Your task to perform on an android device: open chrome and create a bookmark for the current page Image 0: 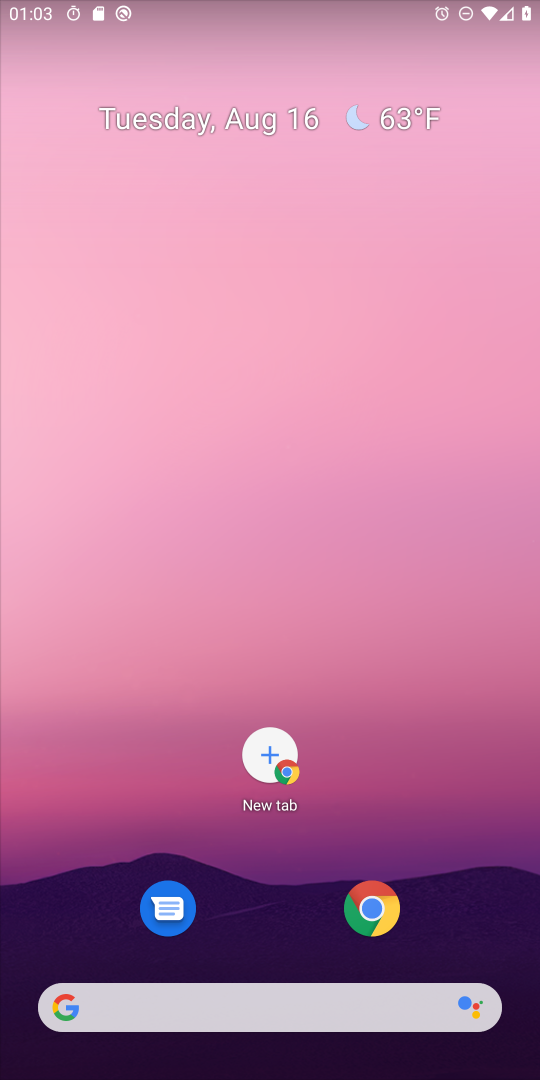
Step 0: click (388, 923)
Your task to perform on an android device: open chrome and create a bookmark for the current page Image 1: 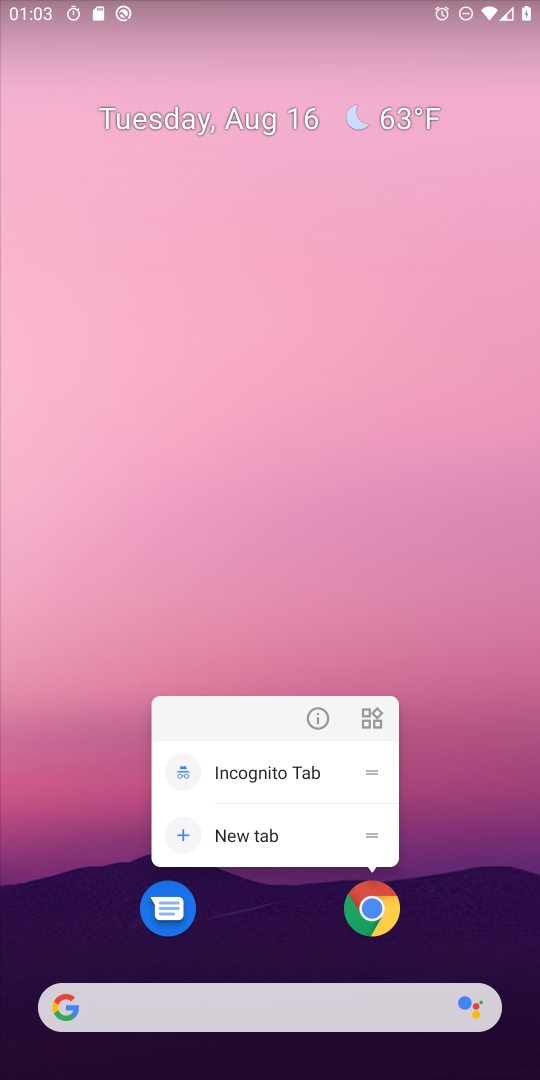
Step 1: click (250, 839)
Your task to perform on an android device: open chrome and create a bookmark for the current page Image 2: 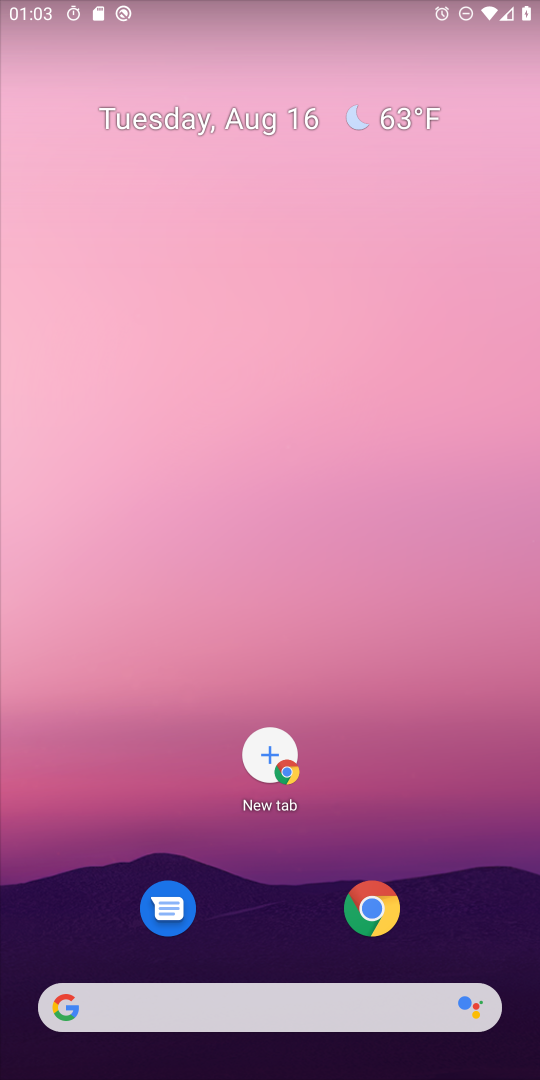
Step 2: click (273, 747)
Your task to perform on an android device: open chrome and create a bookmark for the current page Image 3: 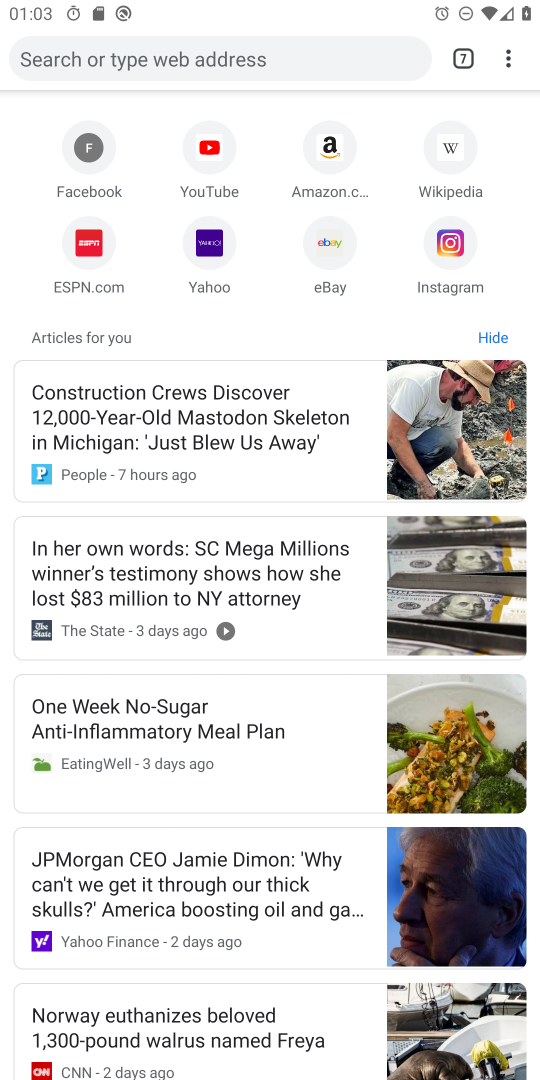
Step 3: click (506, 51)
Your task to perform on an android device: open chrome and create a bookmark for the current page Image 4: 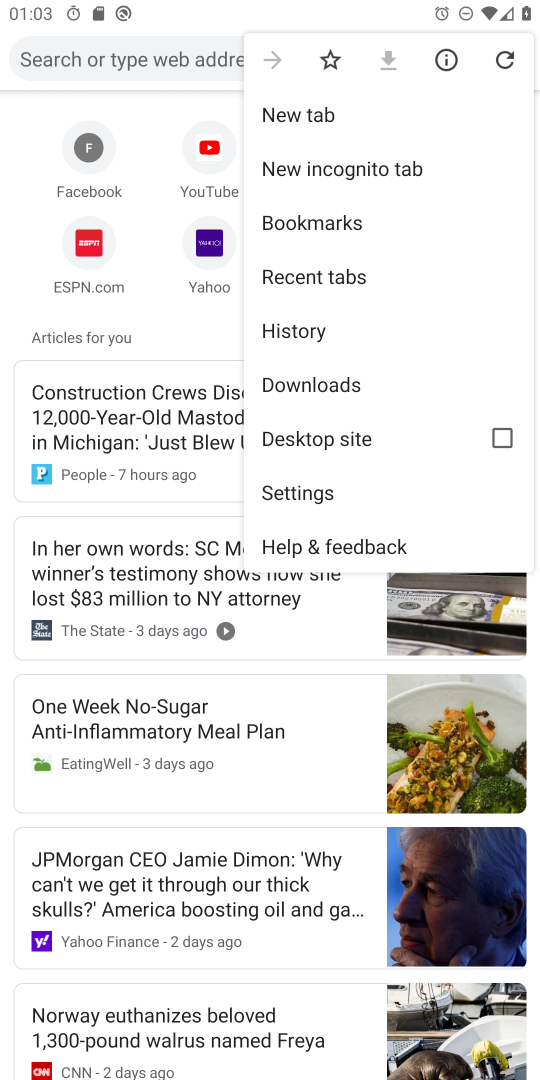
Step 4: click (332, 62)
Your task to perform on an android device: open chrome and create a bookmark for the current page Image 5: 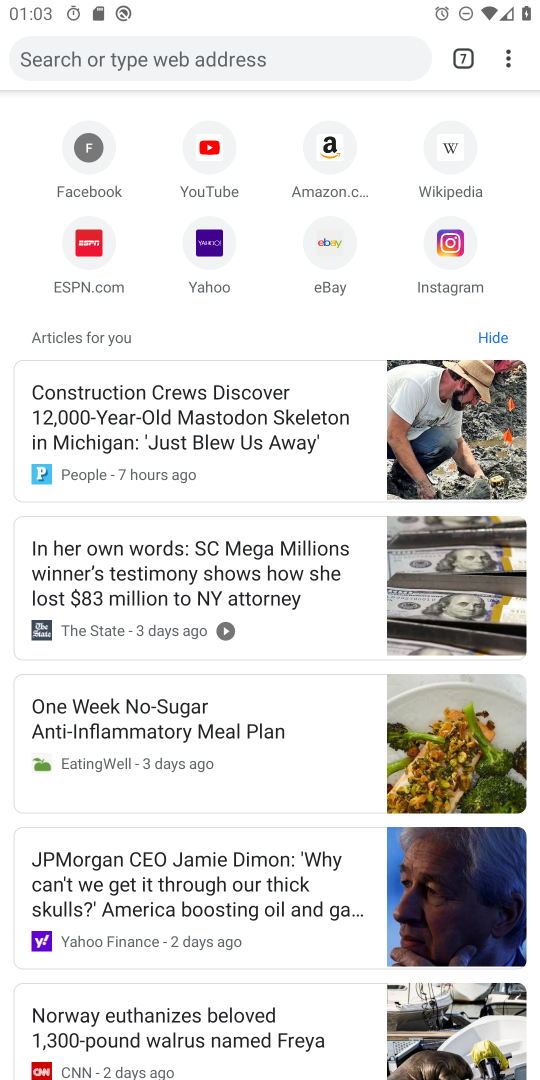
Step 5: task complete